Your task to perform on an android device: Open accessibility settings Image 0: 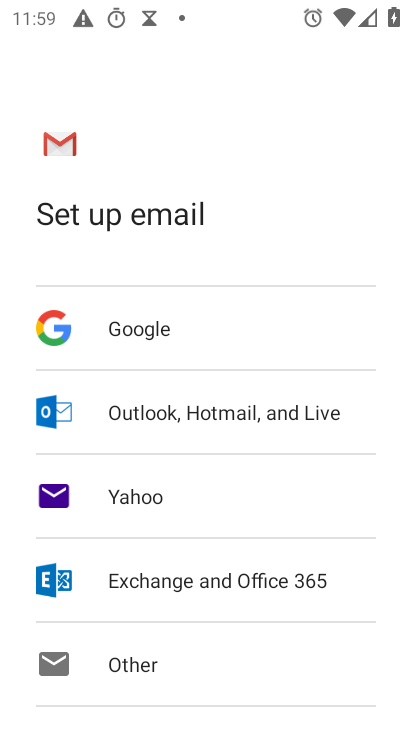
Step 0: press home button
Your task to perform on an android device: Open accessibility settings Image 1: 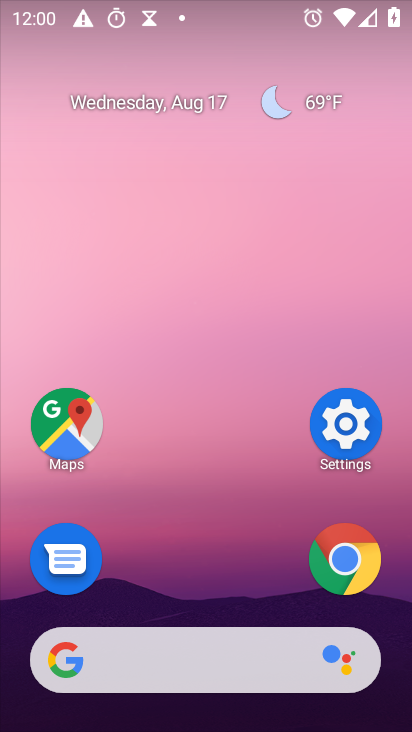
Step 1: click (350, 427)
Your task to perform on an android device: Open accessibility settings Image 2: 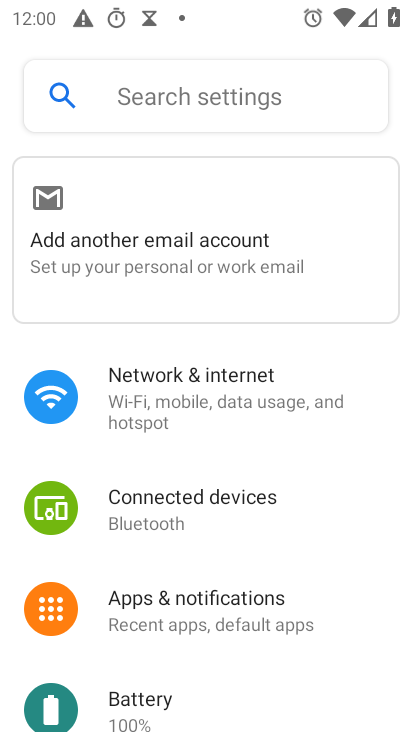
Step 2: drag from (261, 678) to (331, 97)
Your task to perform on an android device: Open accessibility settings Image 3: 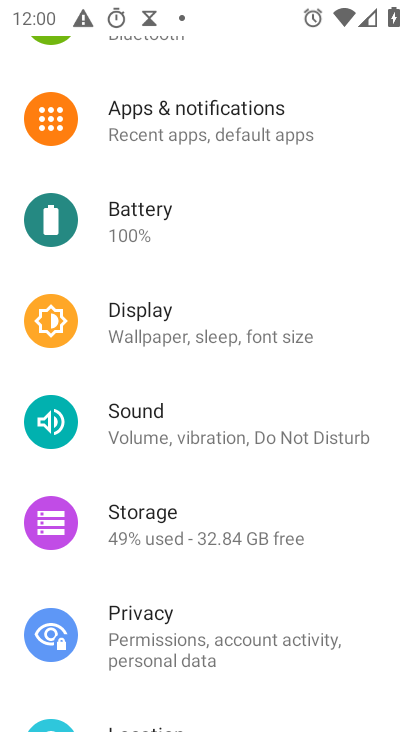
Step 3: drag from (214, 678) to (379, 32)
Your task to perform on an android device: Open accessibility settings Image 4: 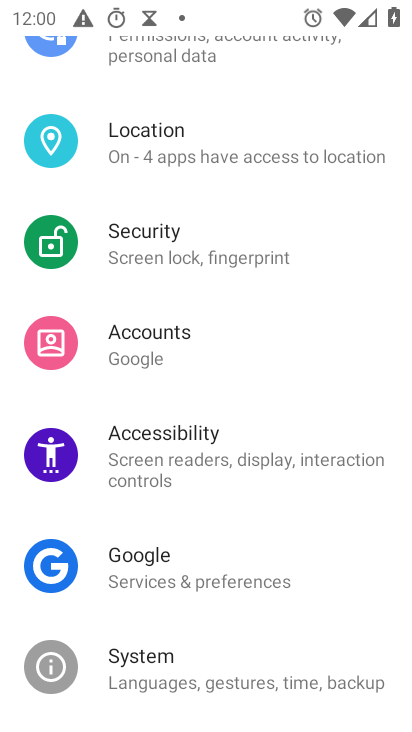
Step 4: click (157, 452)
Your task to perform on an android device: Open accessibility settings Image 5: 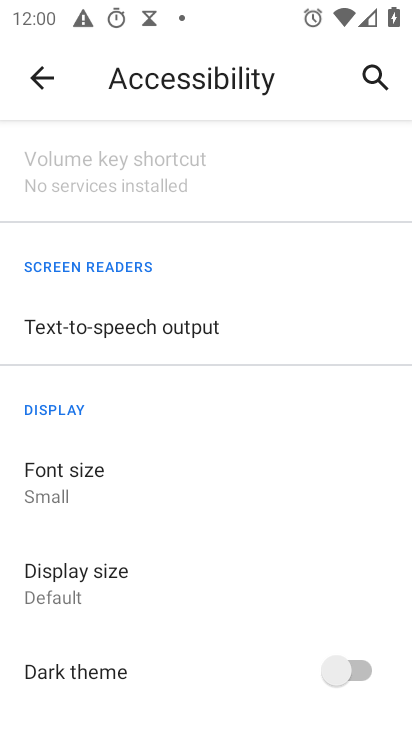
Step 5: task complete